Your task to perform on an android device: turn off sleep mode Image 0: 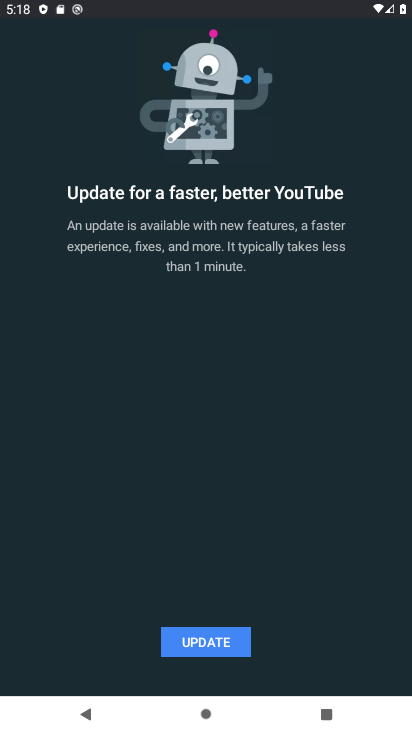
Step 0: press home button
Your task to perform on an android device: turn off sleep mode Image 1: 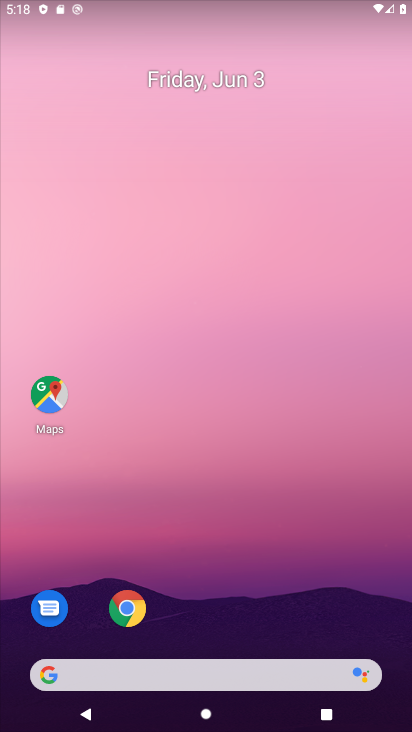
Step 1: drag from (245, 629) to (333, 282)
Your task to perform on an android device: turn off sleep mode Image 2: 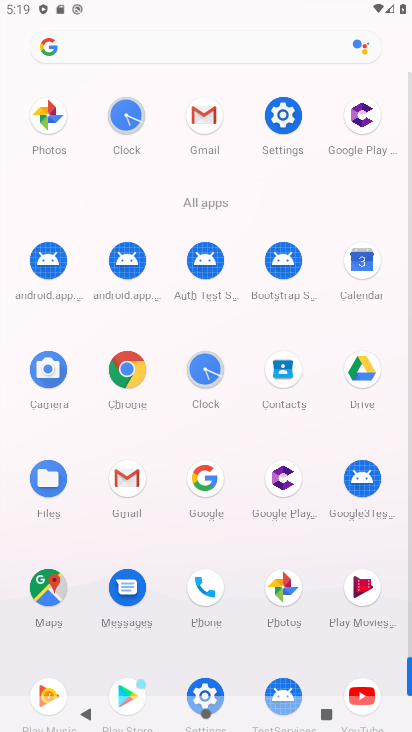
Step 2: click (287, 124)
Your task to perform on an android device: turn off sleep mode Image 3: 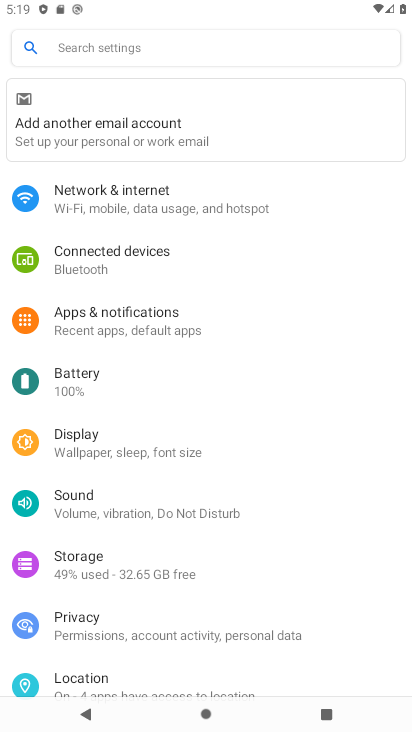
Step 3: click (202, 448)
Your task to perform on an android device: turn off sleep mode Image 4: 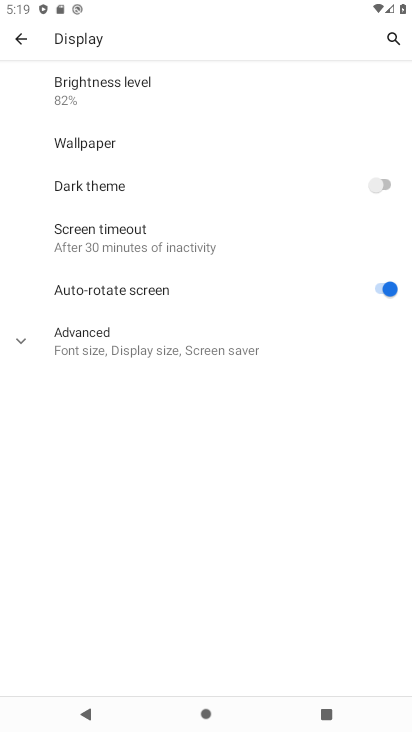
Step 4: click (251, 352)
Your task to perform on an android device: turn off sleep mode Image 5: 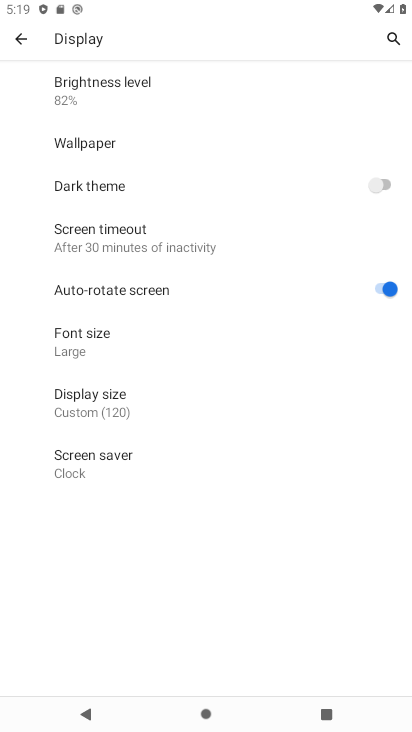
Step 5: task complete